Your task to perform on an android device: Open maps Image 0: 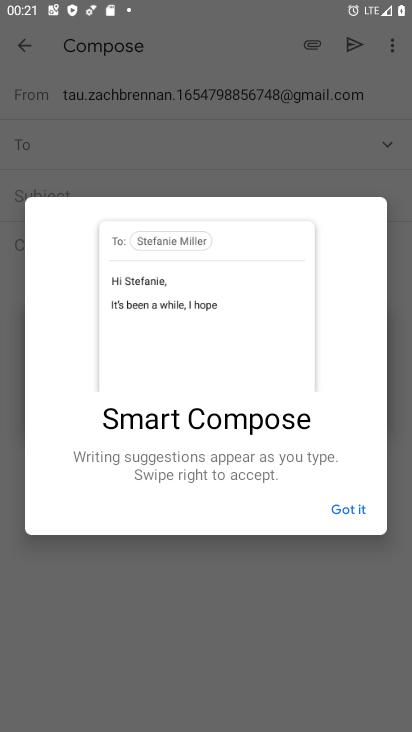
Step 0: press home button
Your task to perform on an android device: Open maps Image 1: 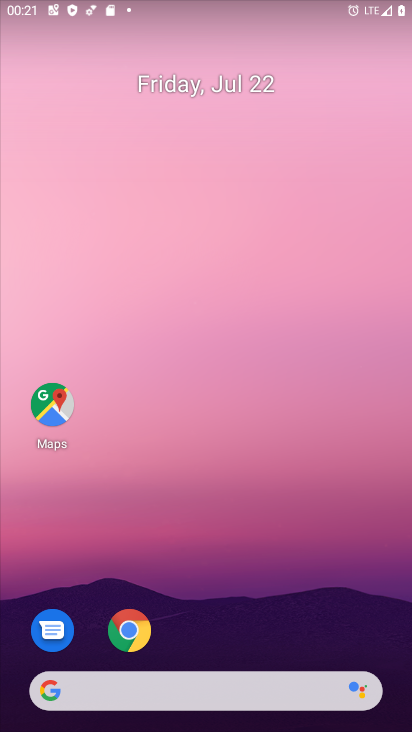
Step 1: click (64, 417)
Your task to perform on an android device: Open maps Image 2: 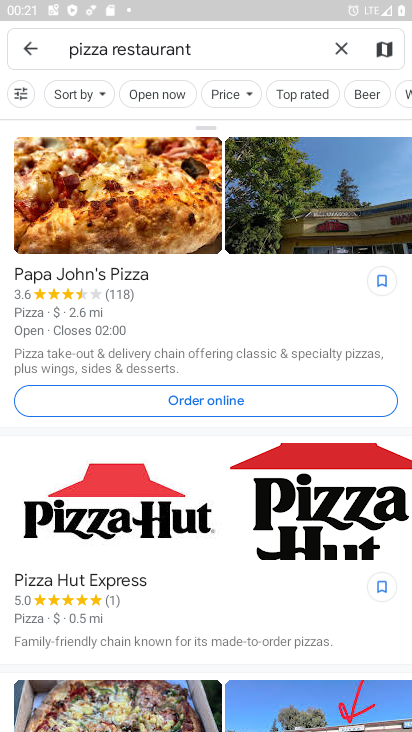
Step 2: task complete